Your task to perform on an android device: turn notification dots on Image 0: 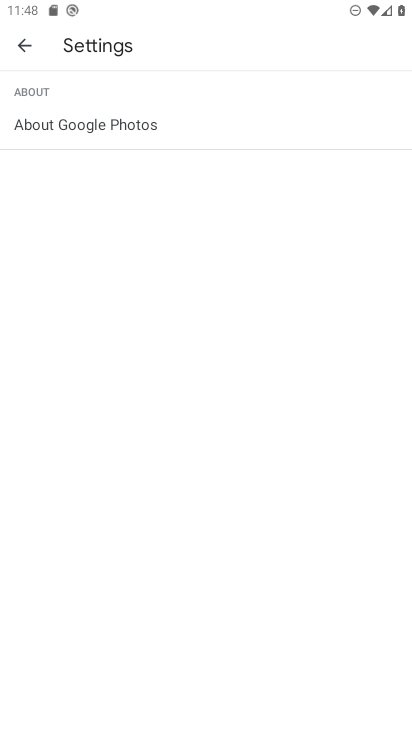
Step 0: press home button
Your task to perform on an android device: turn notification dots on Image 1: 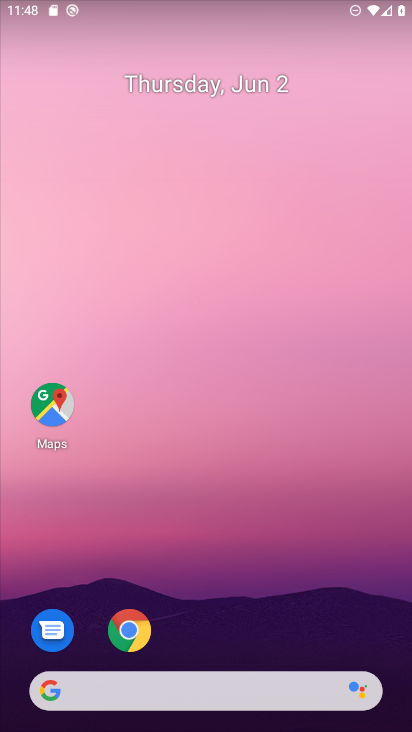
Step 1: drag from (251, 653) to (203, 250)
Your task to perform on an android device: turn notification dots on Image 2: 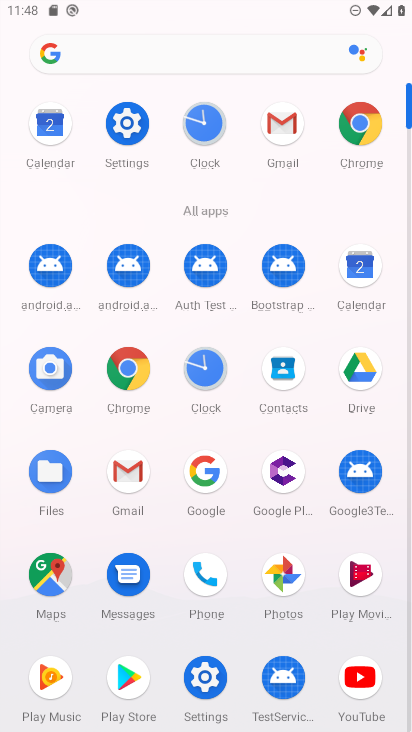
Step 2: click (136, 129)
Your task to perform on an android device: turn notification dots on Image 3: 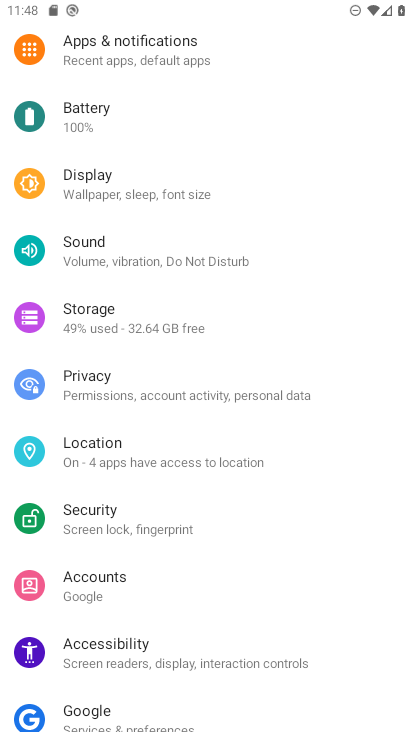
Step 3: drag from (193, 238) to (200, 592)
Your task to perform on an android device: turn notification dots on Image 4: 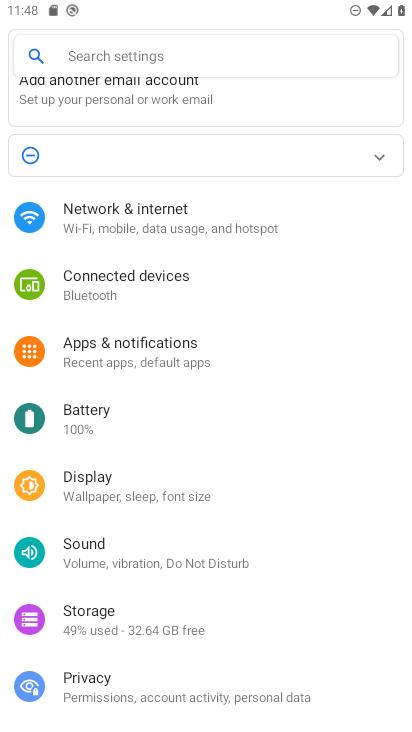
Step 4: click (185, 356)
Your task to perform on an android device: turn notification dots on Image 5: 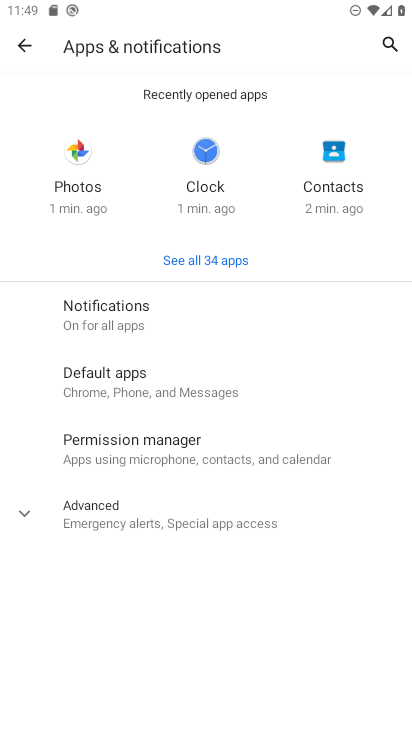
Step 5: click (189, 323)
Your task to perform on an android device: turn notification dots on Image 6: 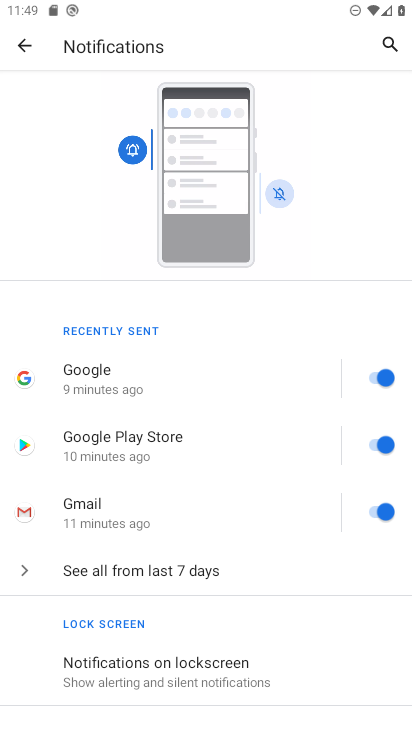
Step 6: drag from (255, 660) to (245, 363)
Your task to perform on an android device: turn notification dots on Image 7: 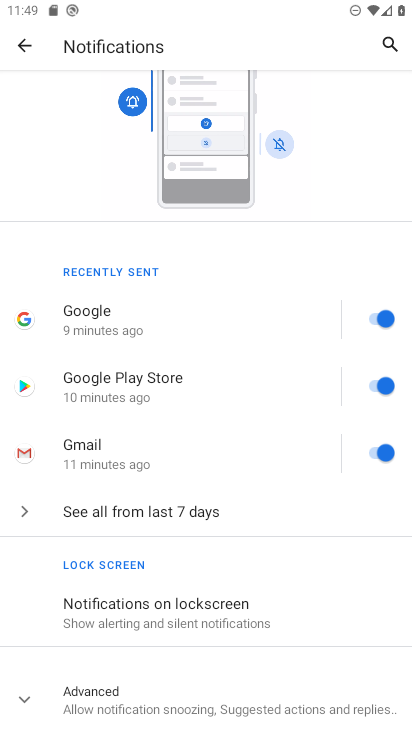
Step 7: click (248, 689)
Your task to perform on an android device: turn notification dots on Image 8: 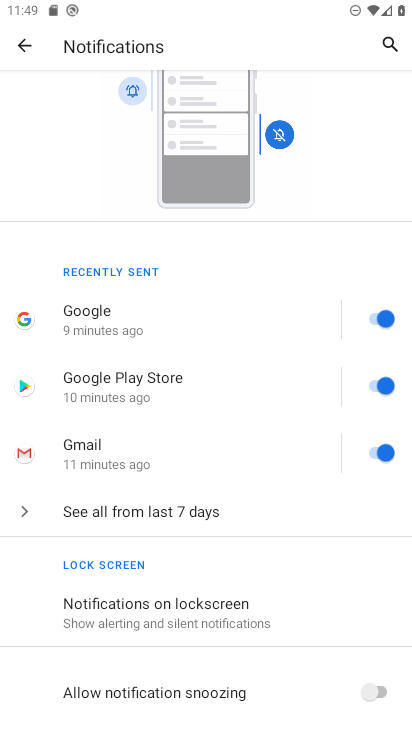
Step 8: task complete